Your task to perform on an android device: change keyboard looks Image 0: 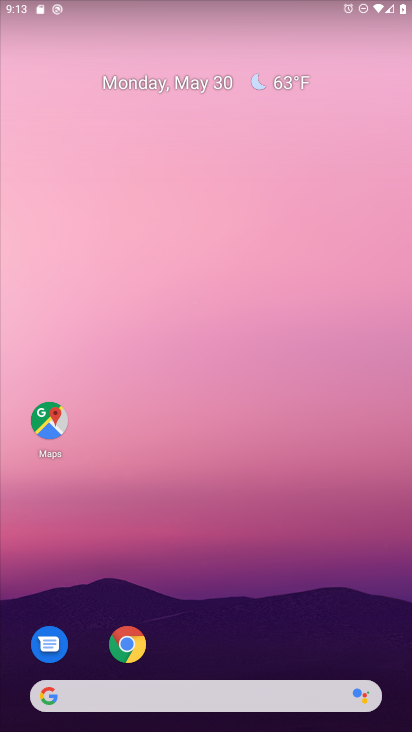
Step 0: drag from (181, 644) to (207, 80)
Your task to perform on an android device: change keyboard looks Image 1: 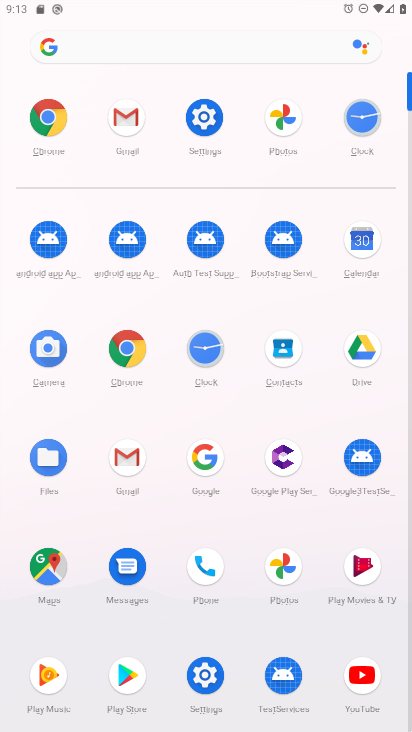
Step 1: click (199, 117)
Your task to perform on an android device: change keyboard looks Image 2: 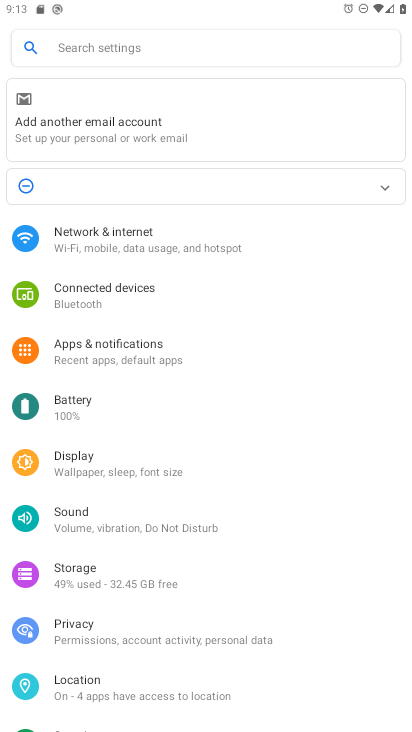
Step 2: drag from (190, 642) to (182, 148)
Your task to perform on an android device: change keyboard looks Image 3: 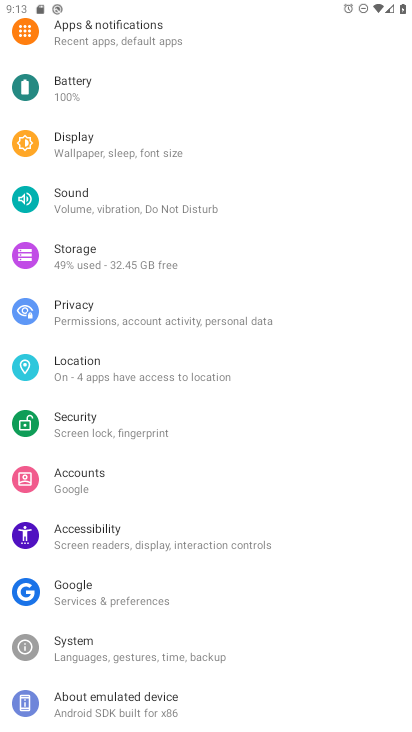
Step 3: click (91, 650)
Your task to perform on an android device: change keyboard looks Image 4: 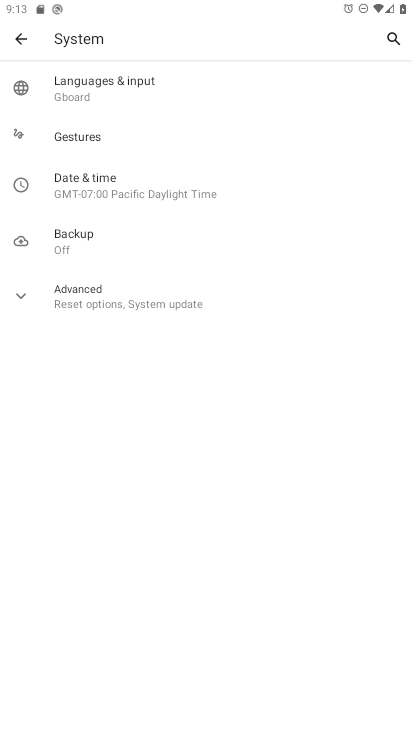
Step 4: click (117, 91)
Your task to perform on an android device: change keyboard looks Image 5: 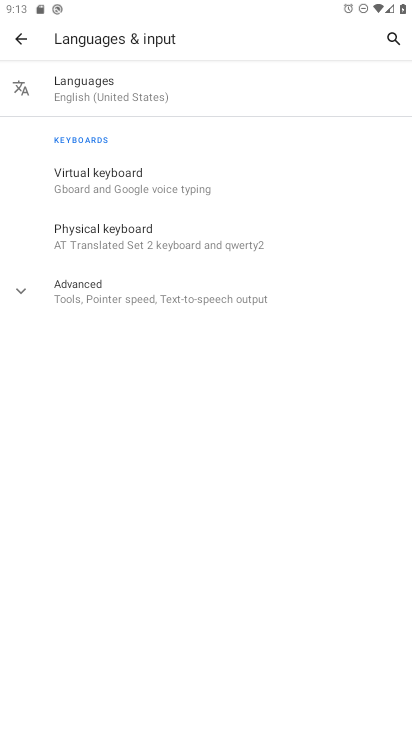
Step 5: click (110, 175)
Your task to perform on an android device: change keyboard looks Image 6: 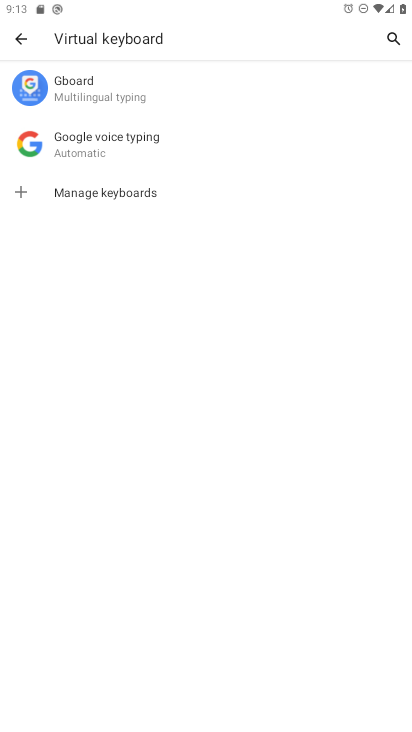
Step 6: click (115, 88)
Your task to perform on an android device: change keyboard looks Image 7: 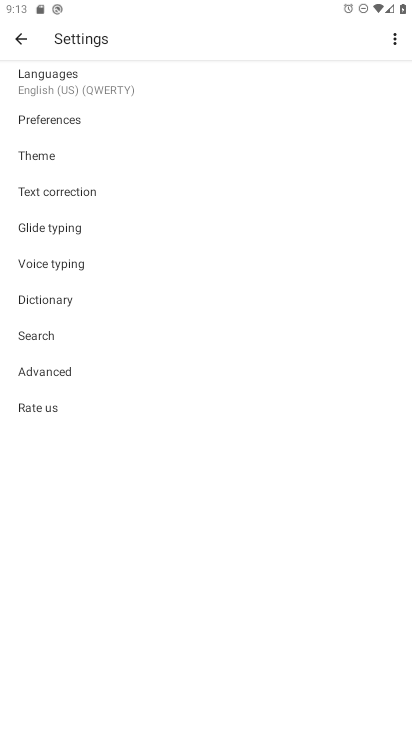
Step 7: click (70, 171)
Your task to perform on an android device: change keyboard looks Image 8: 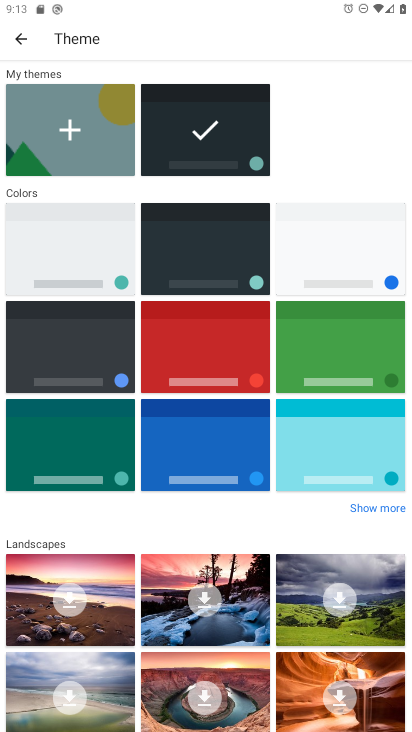
Step 8: click (191, 245)
Your task to perform on an android device: change keyboard looks Image 9: 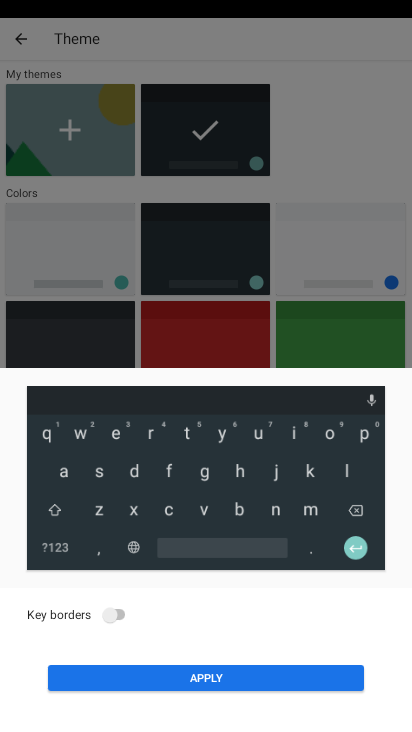
Step 9: click (210, 681)
Your task to perform on an android device: change keyboard looks Image 10: 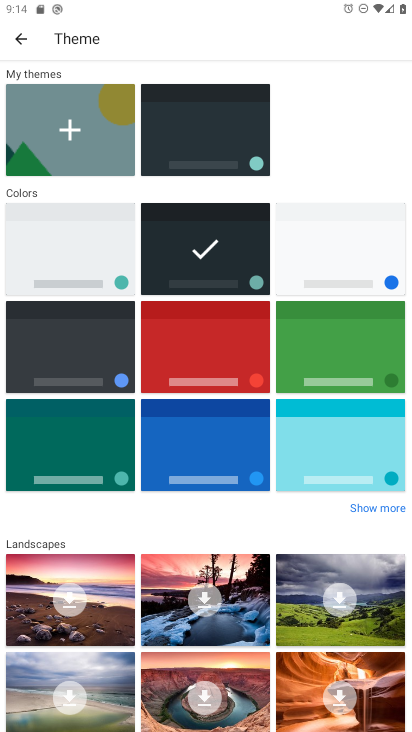
Step 10: task complete